Your task to perform on an android device: Play the last video I watched on Youtube Image 0: 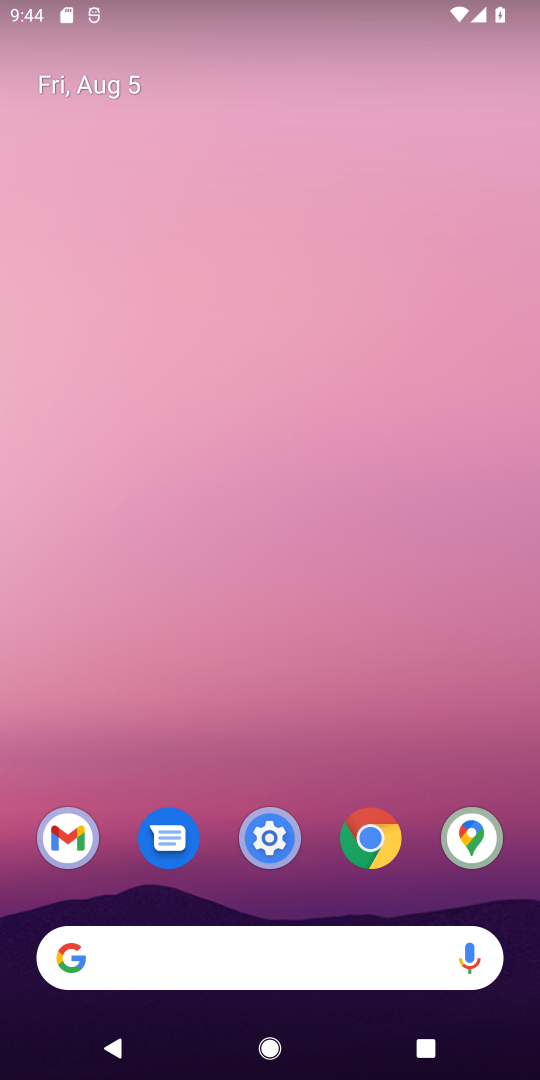
Step 0: drag from (103, 783) to (223, 242)
Your task to perform on an android device: Play the last video I watched on Youtube Image 1: 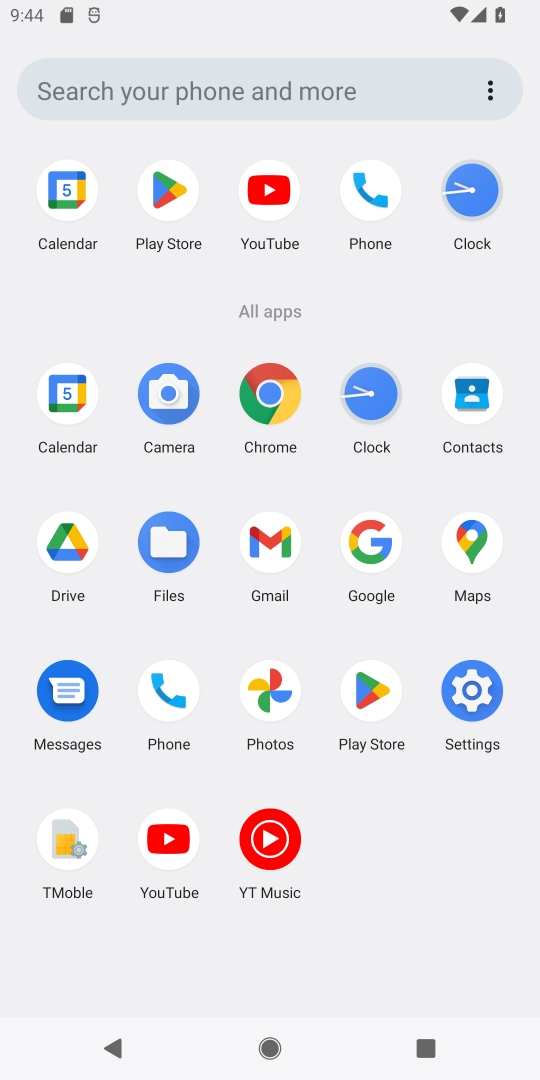
Step 1: click (268, 185)
Your task to perform on an android device: Play the last video I watched on Youtube Image 2: 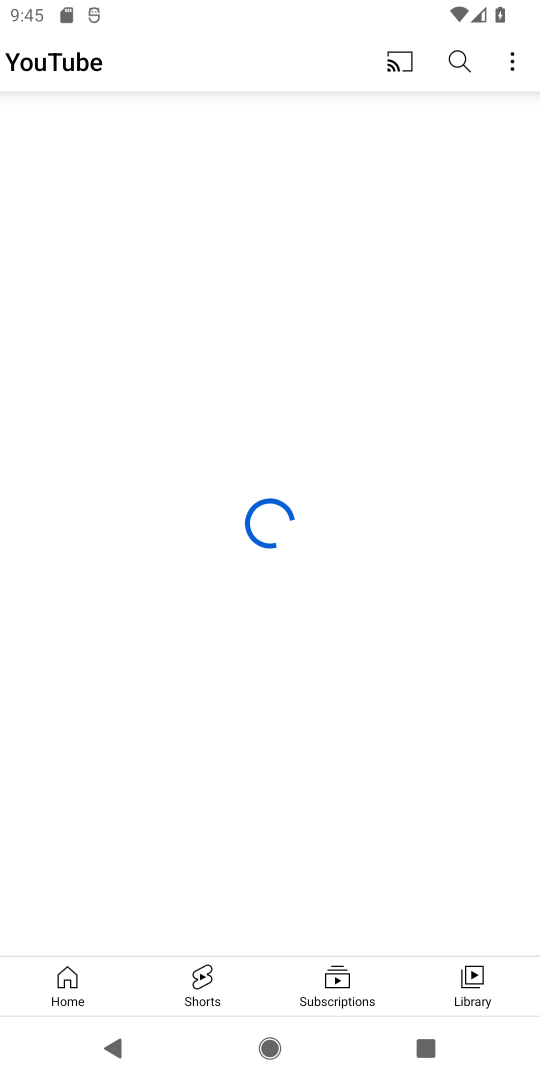
Step 2: click (462, 994)
Your task to perform on an android device: Play the last video I watched on Youtube Image 3: 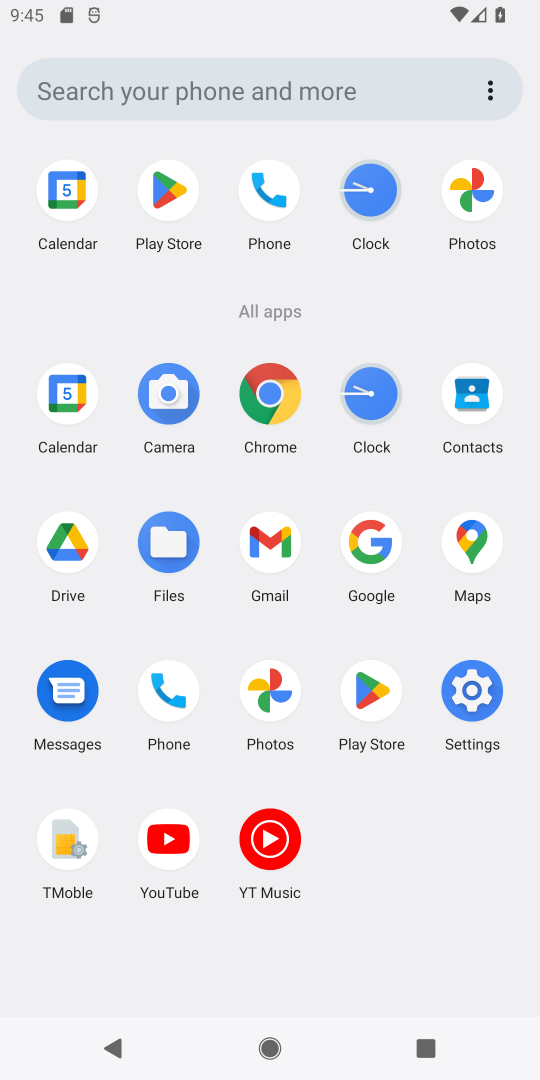
Step 3: task complete